Your task to perform on an android device: toggle javascript in the chrome app Image 0: 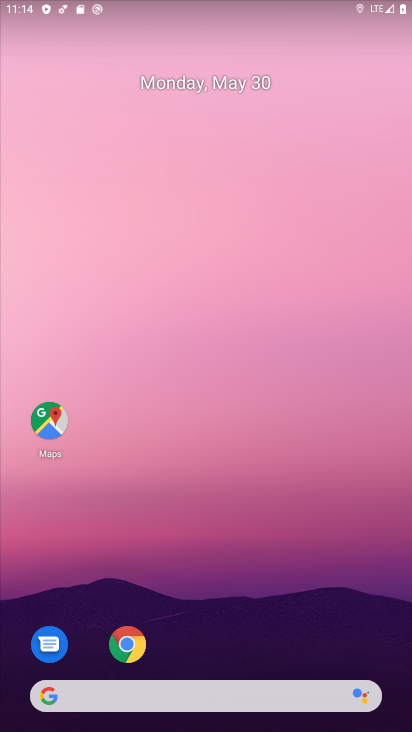
Step 0: drag from (231, 642) to (253, 147)
Your task to perform on an android device: toggle javascript in the chrome app Image 1: 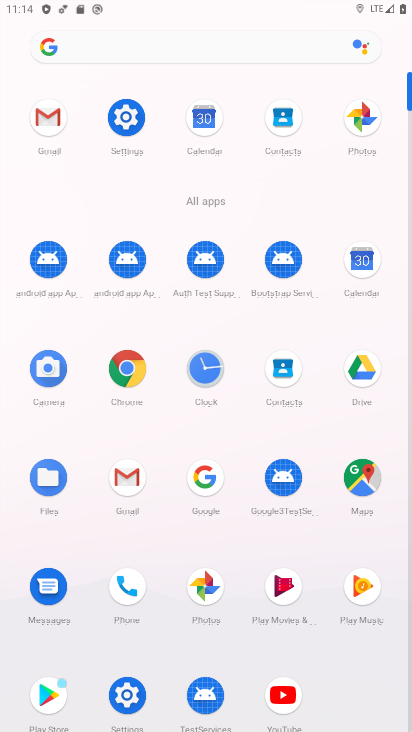
Step 1: click (136, 370)
Your task to perform on an android device: toggle javascript in the chrome app Image 2: 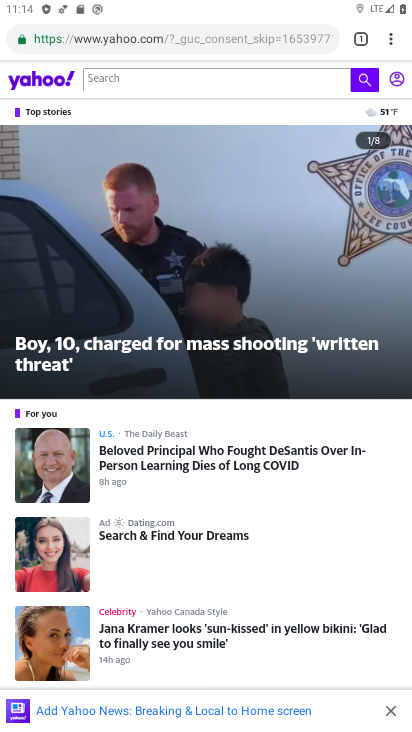
Step 2: drag from (381, 39) to (244, 459)
Your task to perform on an android device: toggle javascript in the chrome app Image 3: 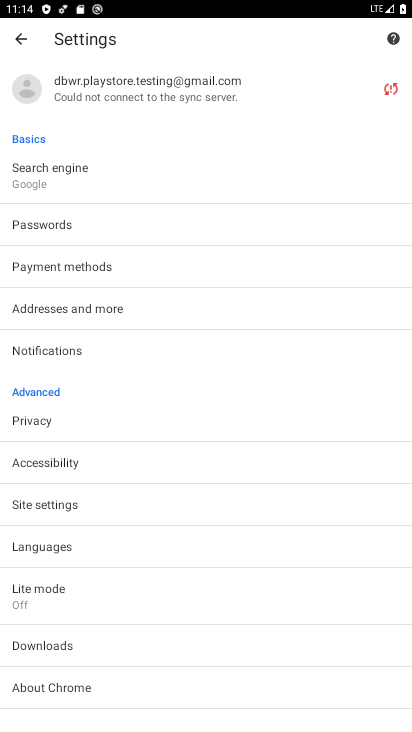
Step 3: click (49, 497)
Your task to perform on an android device: toggle javascript in the chrome app Image 4: 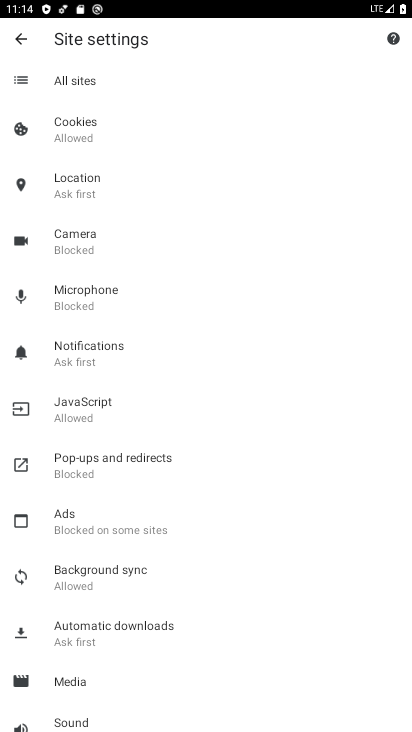
Step 4: click (71, 409)
Your task to perform on an android device: toggle javascript in the chrome app Image 5: 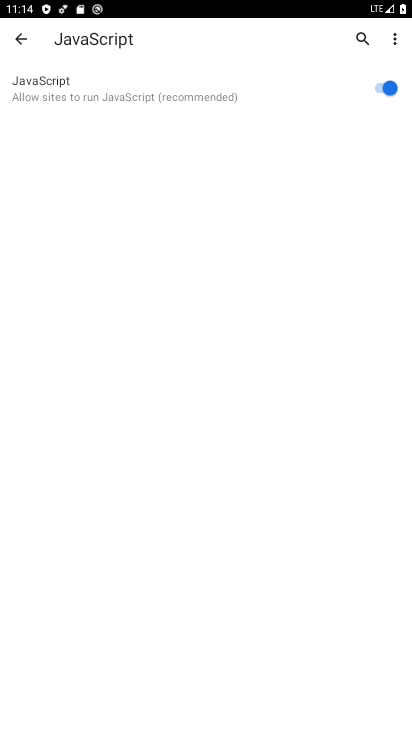
Step 5: click (290, 90)
Your task to perform on an android device: toggle javascript in the chrome app Image 6: 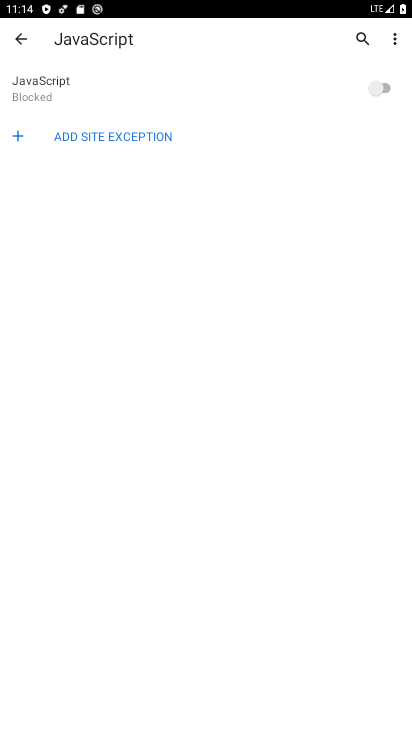
Step 6: task complete